Your task to perform on an android device: Toggle the flashlight Image 0: 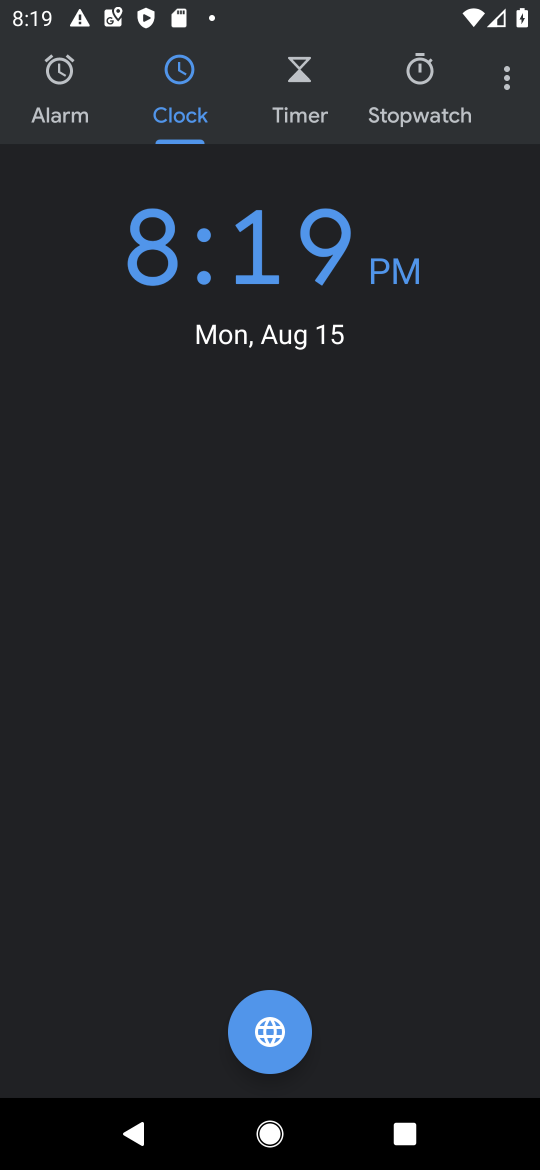
Step 0: press home button
Your task to perform on an android device: Toggle the flashlight Image 1: 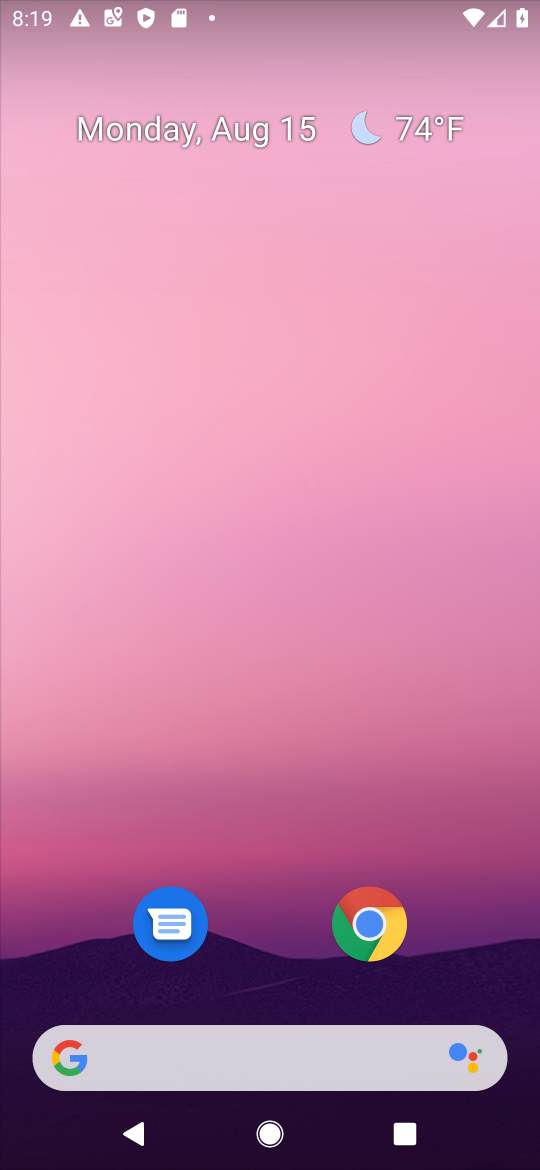
Step 1: drag from (289, 23) to (267, 606)
Your task to perform on an android device: Toggle the flashlight Image 2: 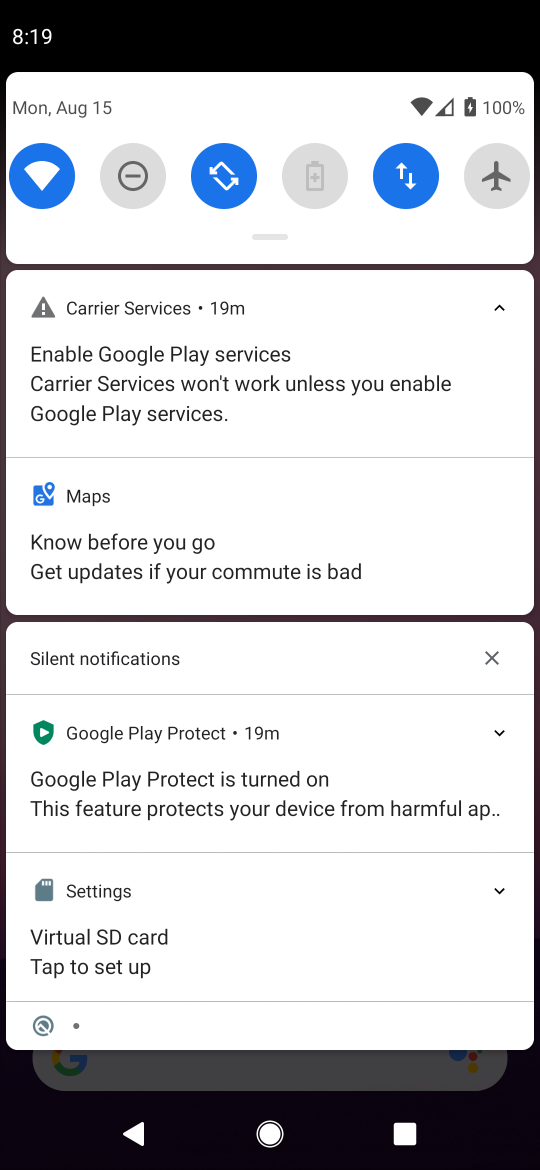
Step 2: drag from (260, 236) to (312, 701)
Your task to perform on an android device: Toggle the flashlight Image 3: 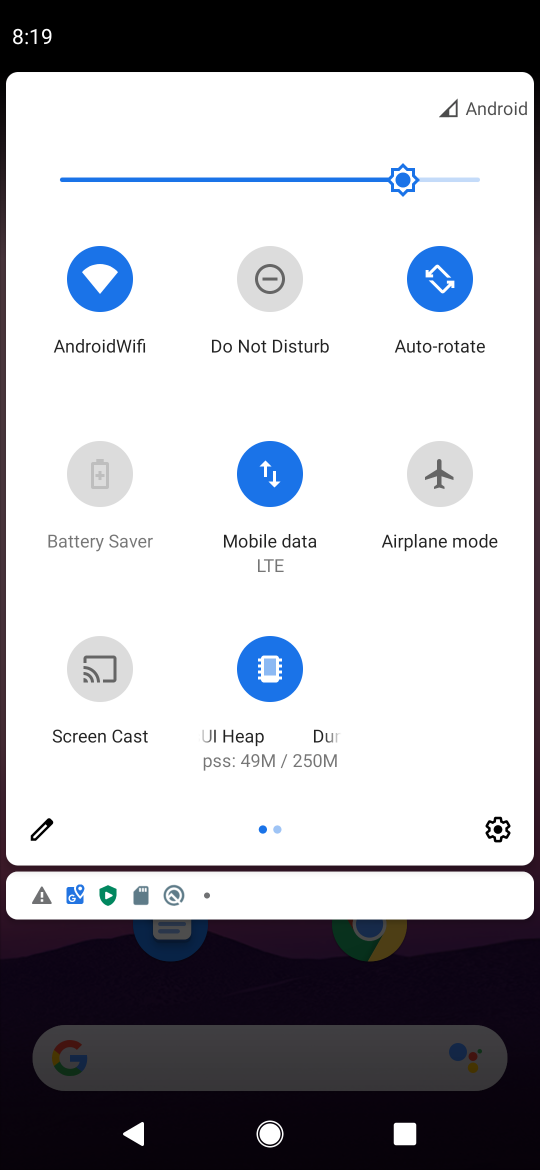
Step 3: click (31, 835)
Your task to perform on an android device: Toggle the flashlight Image 4: 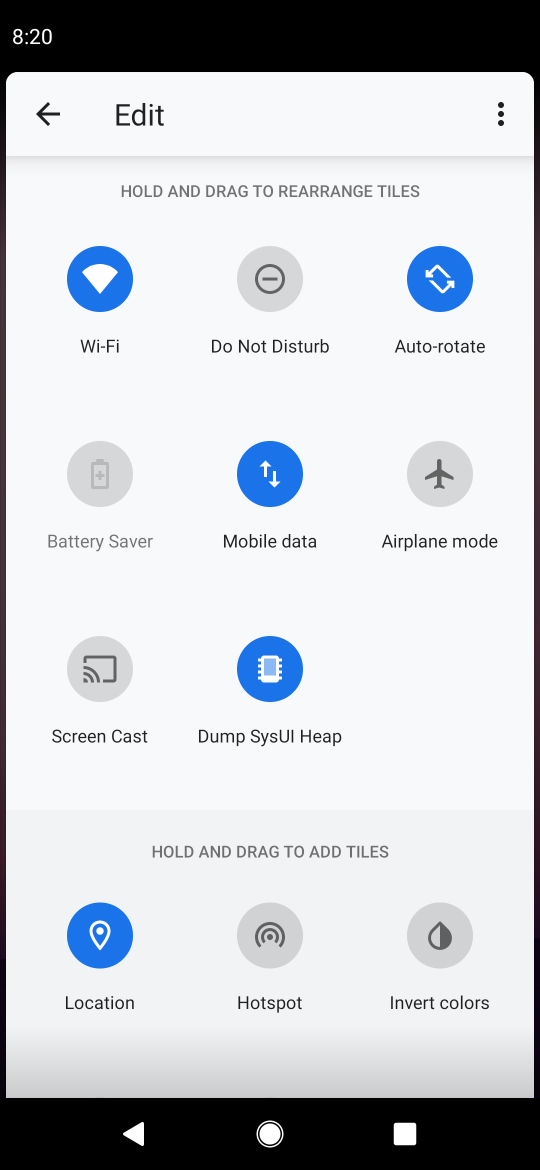
Step 4: task complete